Your task to perform on an android device: change alarm snooze length Image 0: 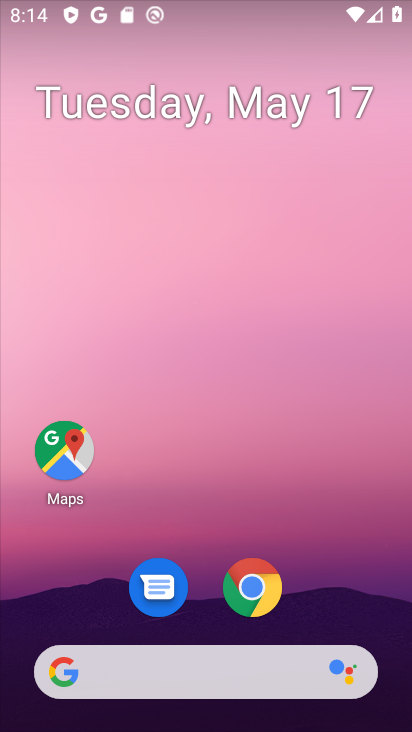
Step 0: drag from (78, 558) to (252, 159)
Your task to perform on an android device: change alarm snooze length Image 1: 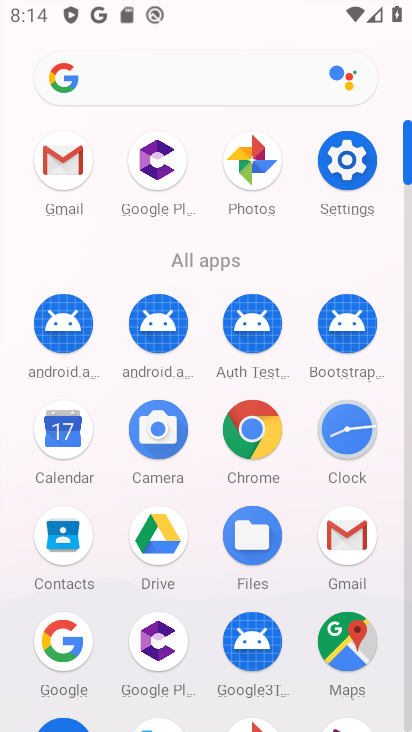
Step 1: click (342, 181)
Your task to perform on an android device: change alarm snooze length Image 2: 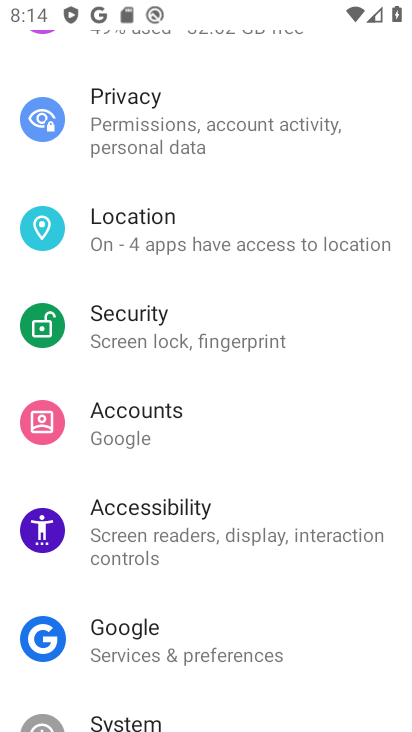
Step 2: press home button
Your task to perform on an android device: change alarm snooze length Image 3: 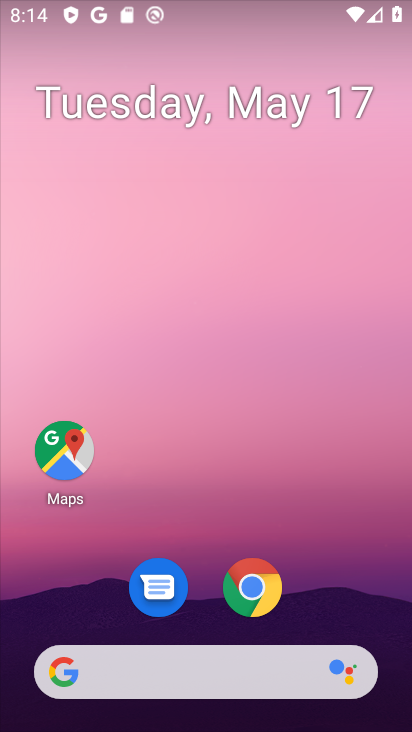
Step 3: drag from (53, 446) to (215, 135)
Your task to perform on an android device: change alarm snooze length Image 4: 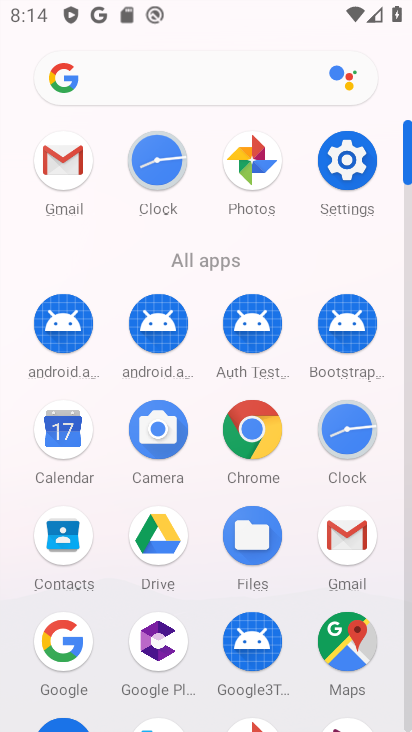
Step 4: click (328, 443)
Your task to perform on an android device: change alarm snooze length Image 5: 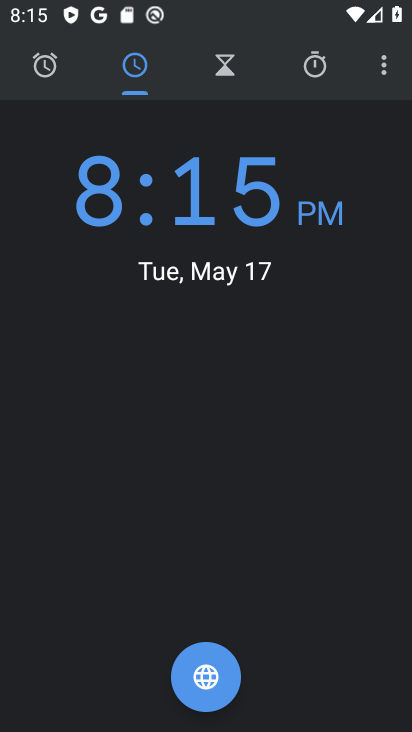
Step 5: click (380, 66)
Your task to perform on an android device: change alarm snooze length Image 6: 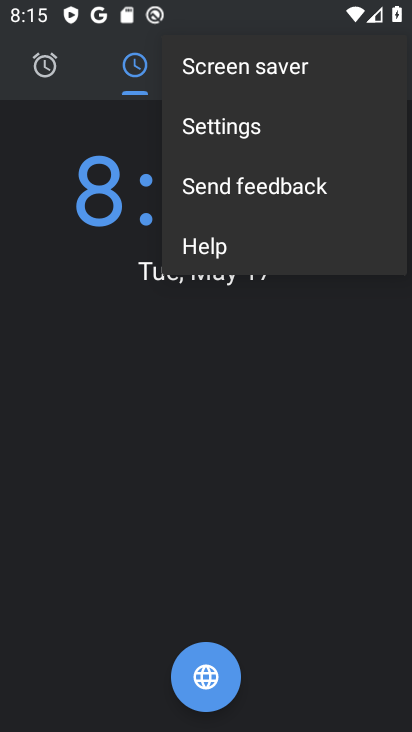
Step 6: click (226, 139)
Your task to perform on an android device: change alarm snooze length Image 7: 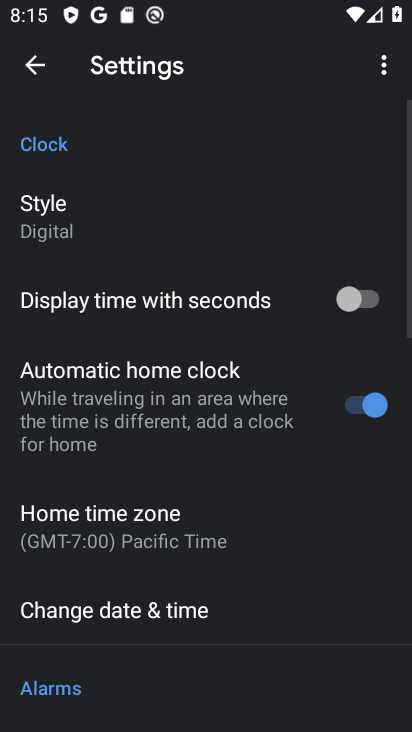
Step 7: drag from (39, 528) to (203, 156)
Your task to perform on an android device: change alarm snooze length Image 8: 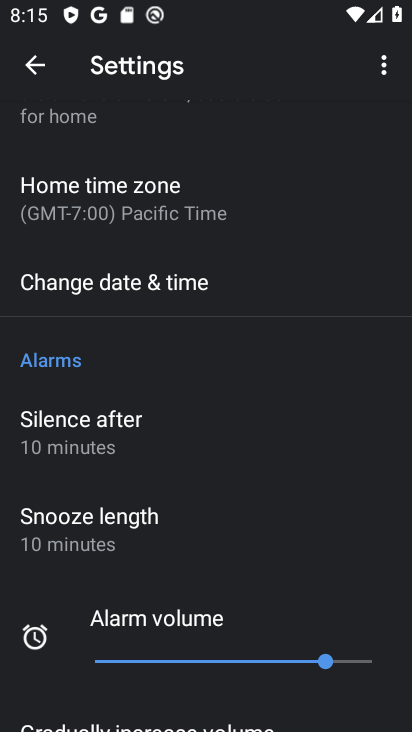
Step 8: click (85, 551)
Your task to perform on an android device: change alarm snooze length Image 9: 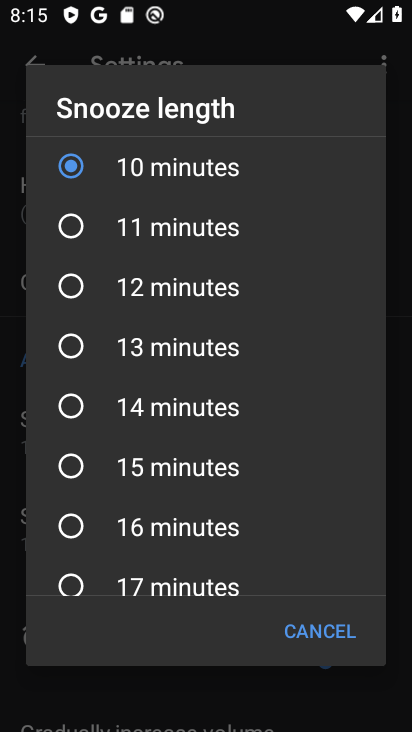
Step 9: click (170, 229)
Your task to perform on an android device: change alarm snooze length Image 10: 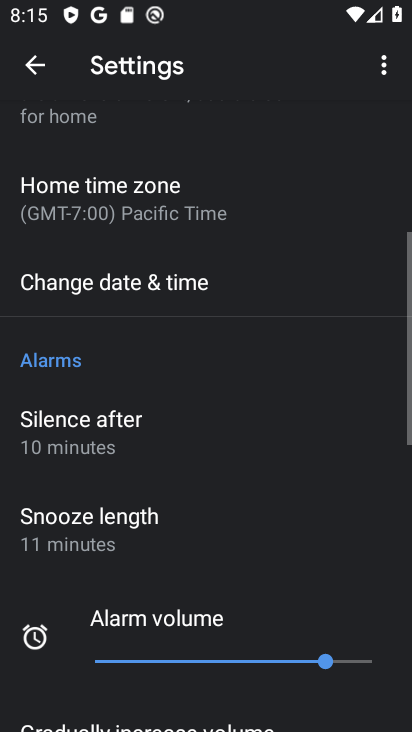
Step 10: task complete